Your task to perform on an android device: change the clock display to digital Image 0: 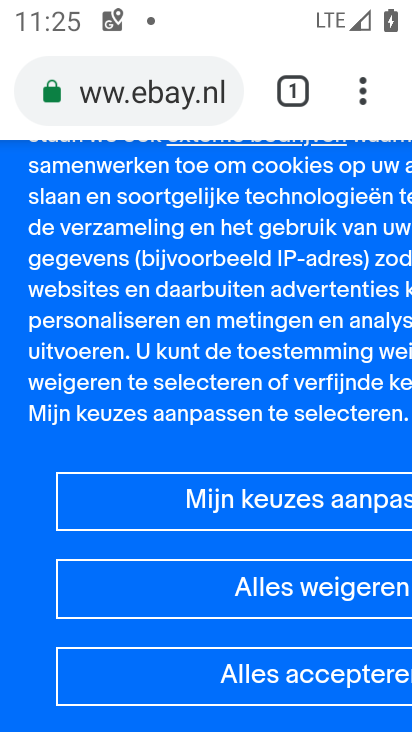
Step 0: press home button
Your task to perform on an android device: change the clock display to digital Image 1: 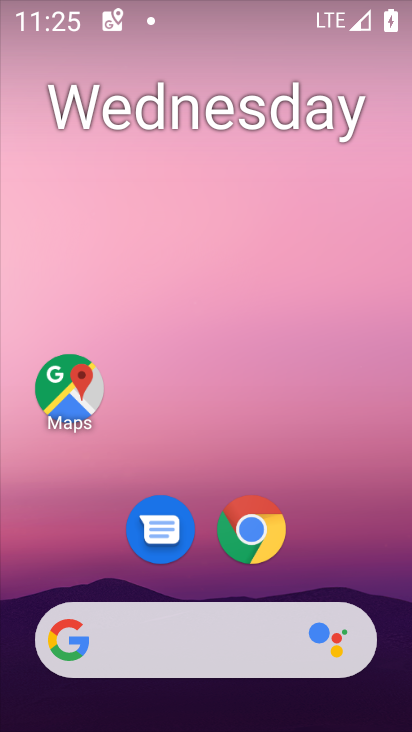
Step 1: drag from (394, 621) to (319, 87)
Your task to perform on an android device: change the clock display to digital Image 2: 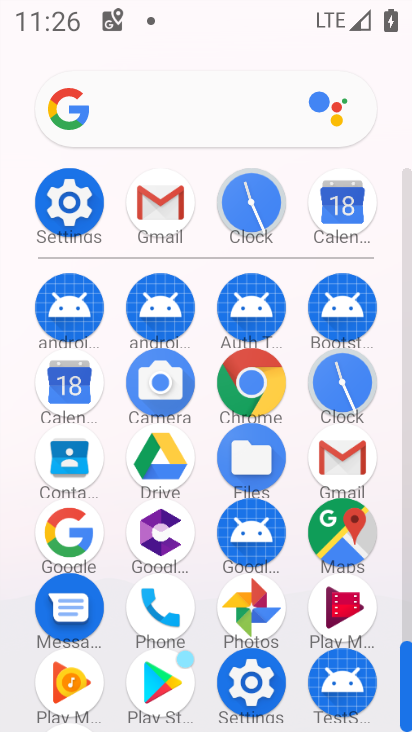
Step 2: click (339, 384)
Your task to perform on an android device: change the clock display to digital Image 3: 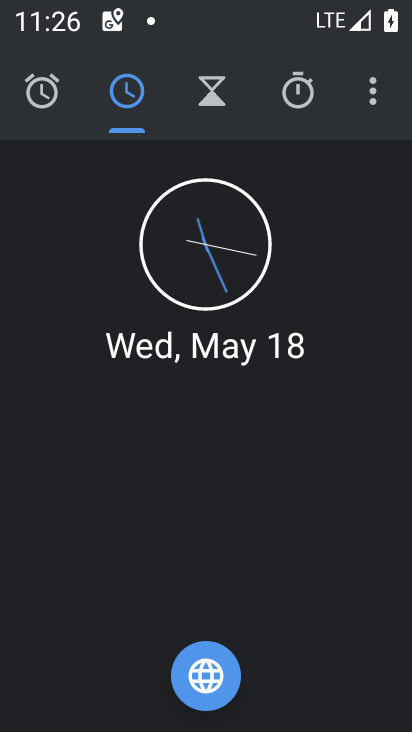
Step 3: click (369, 81)
Your task to perform on an android device: change the clock display to digital Image 4: 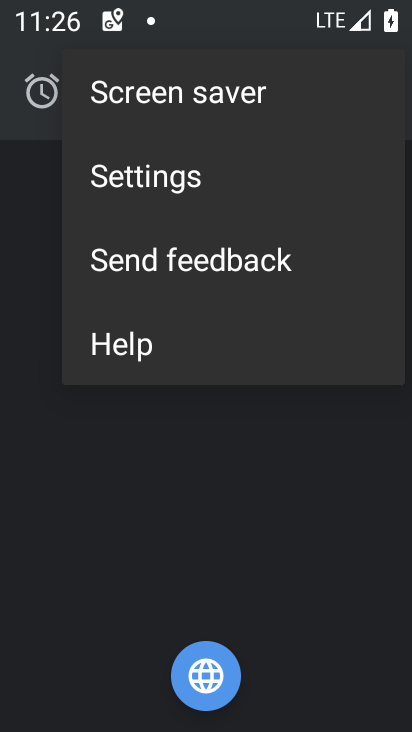
Step 4: click (124, 167)
Your task to perform on an android device: change the clock display to digital Image 5: 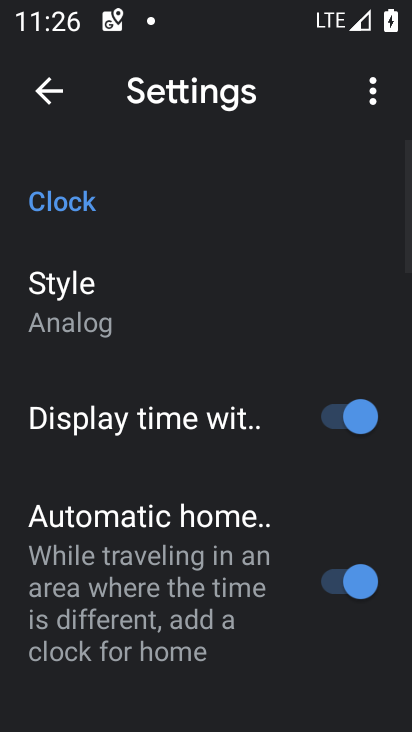
Step 5: click (74, 302)
Your task to perform on an android device: change the clock display to digital Image 6: 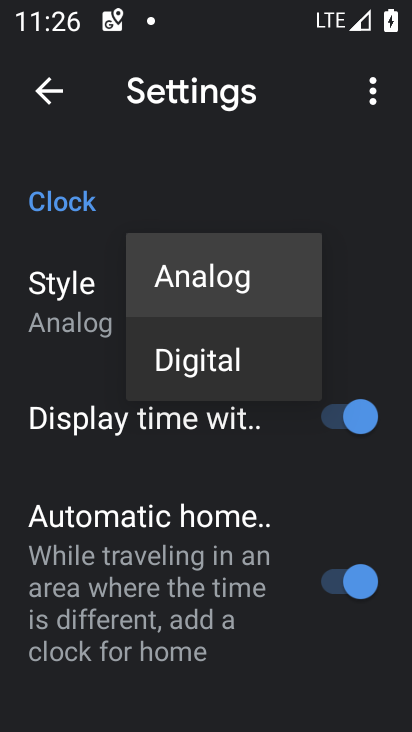
Step 6: click (171, 370)
Your task to perform on an android device: change the clock display to digital Image 7: 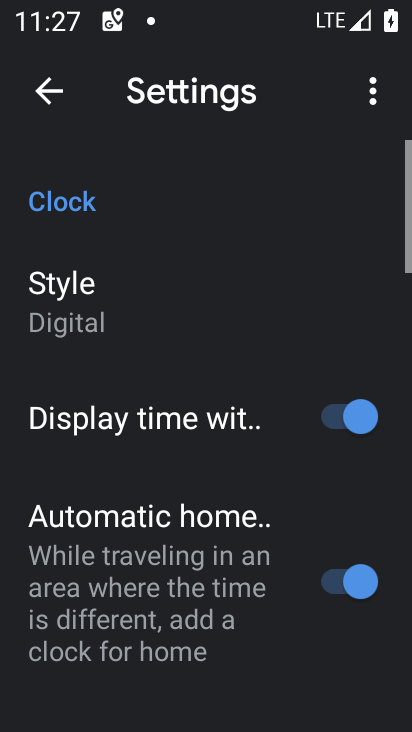
Step 7: task complete